Your task to perform on an android device: check battery use Image 0: 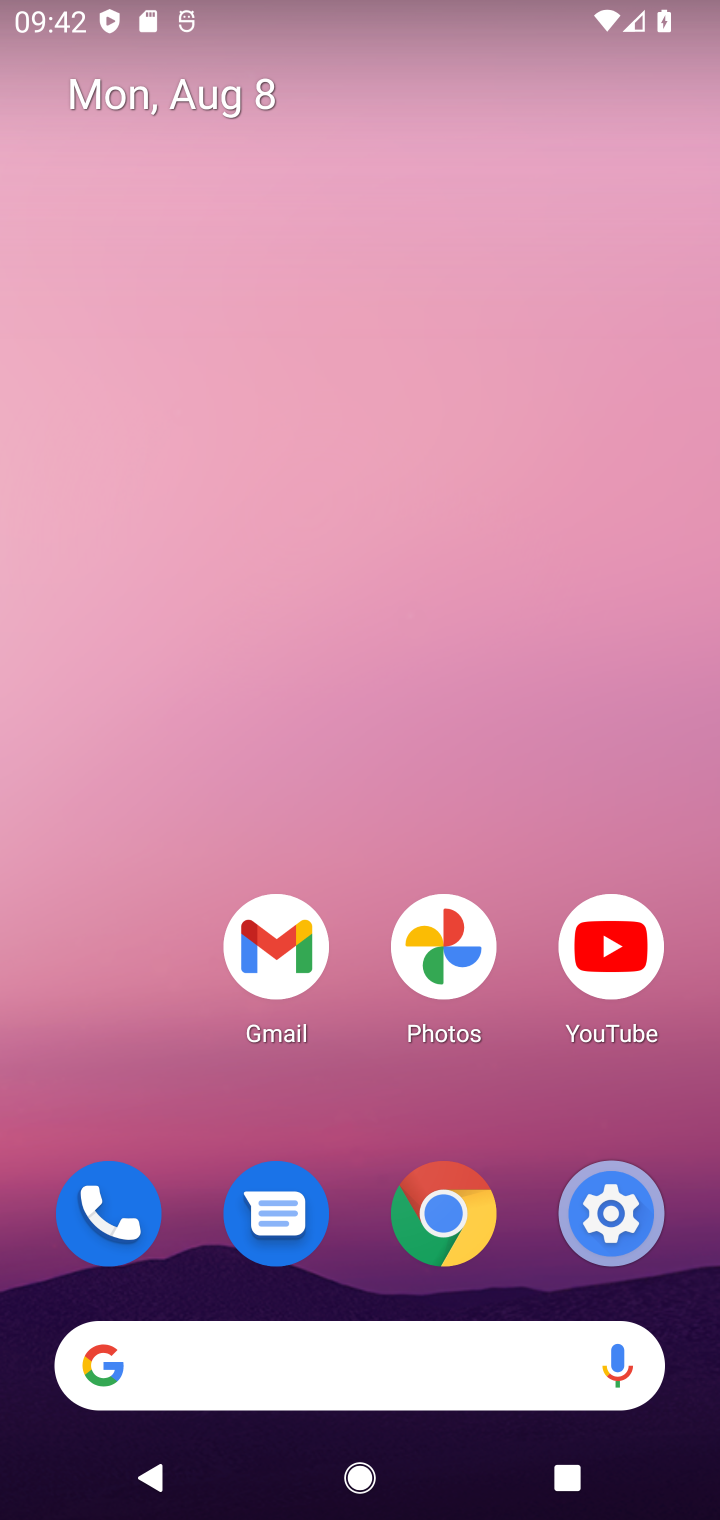
Step 0: drag from (347, 1114) to (347, 434)
Your task to perform on an android device: check battery use Image 1: 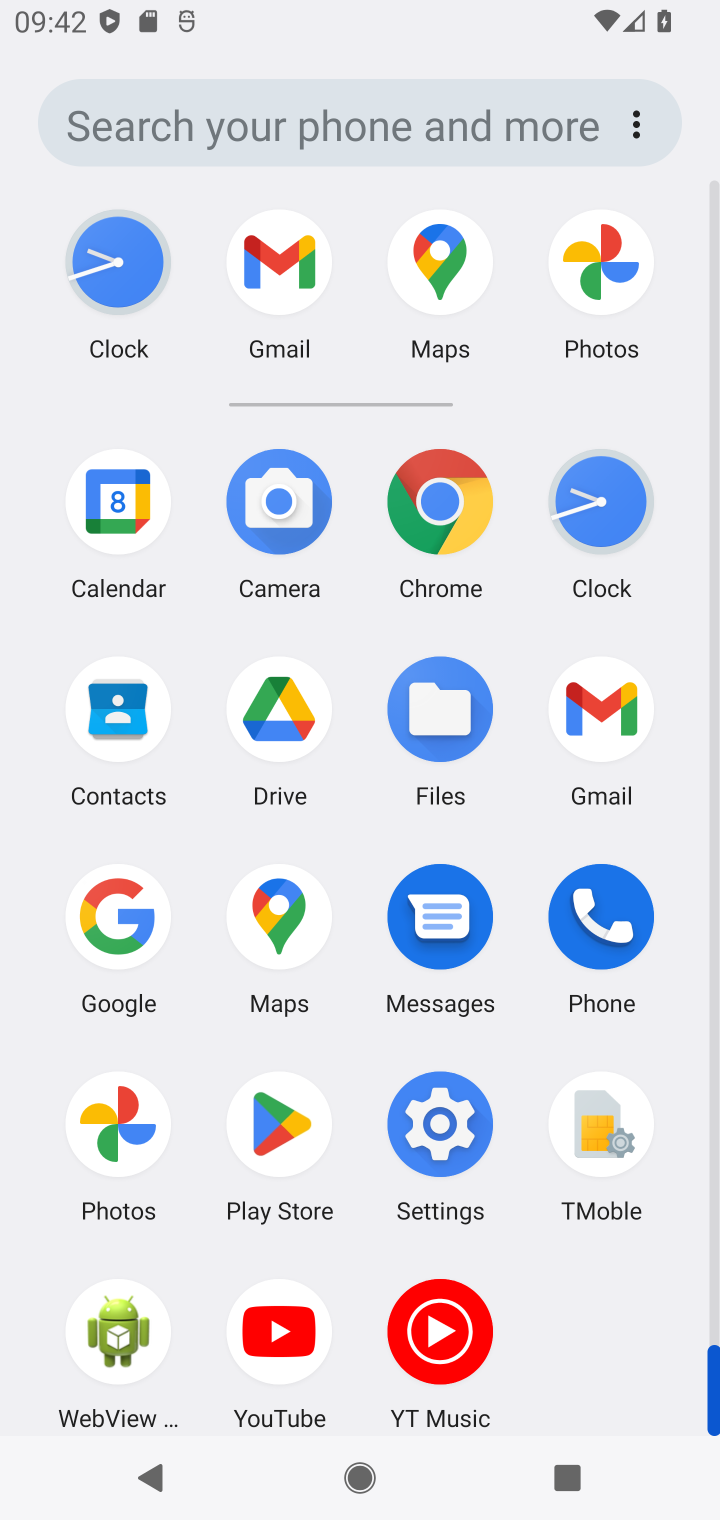
Step 1: click (455, 1153)
Your task to perform on an android device: check battery use Image 2: 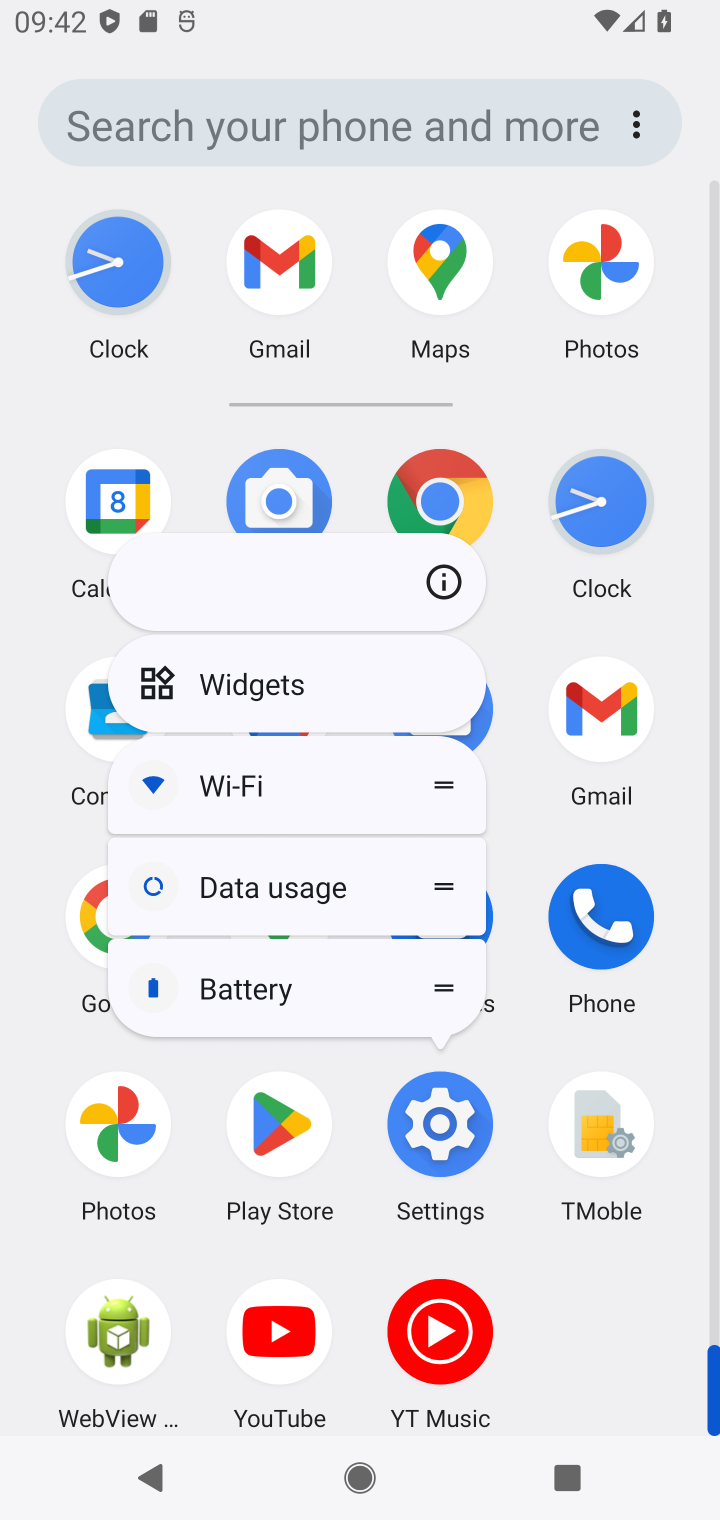
Step 2: click (455, 1153)
Your task to perform on an android device: check battery use Image 3: 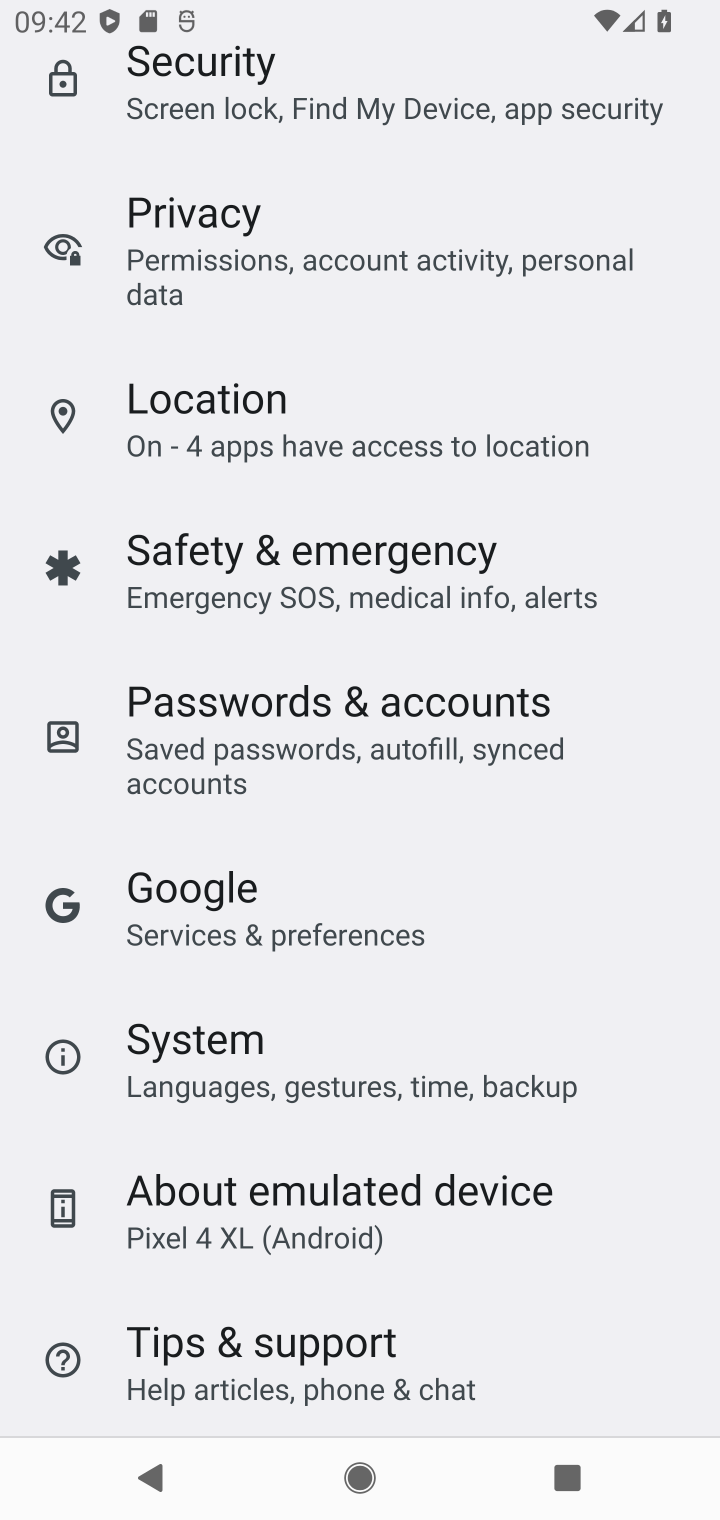
Step 3: drag from (331, 395) to (300, 1166)
Your task to perform on an android device: check battery use Image 4: 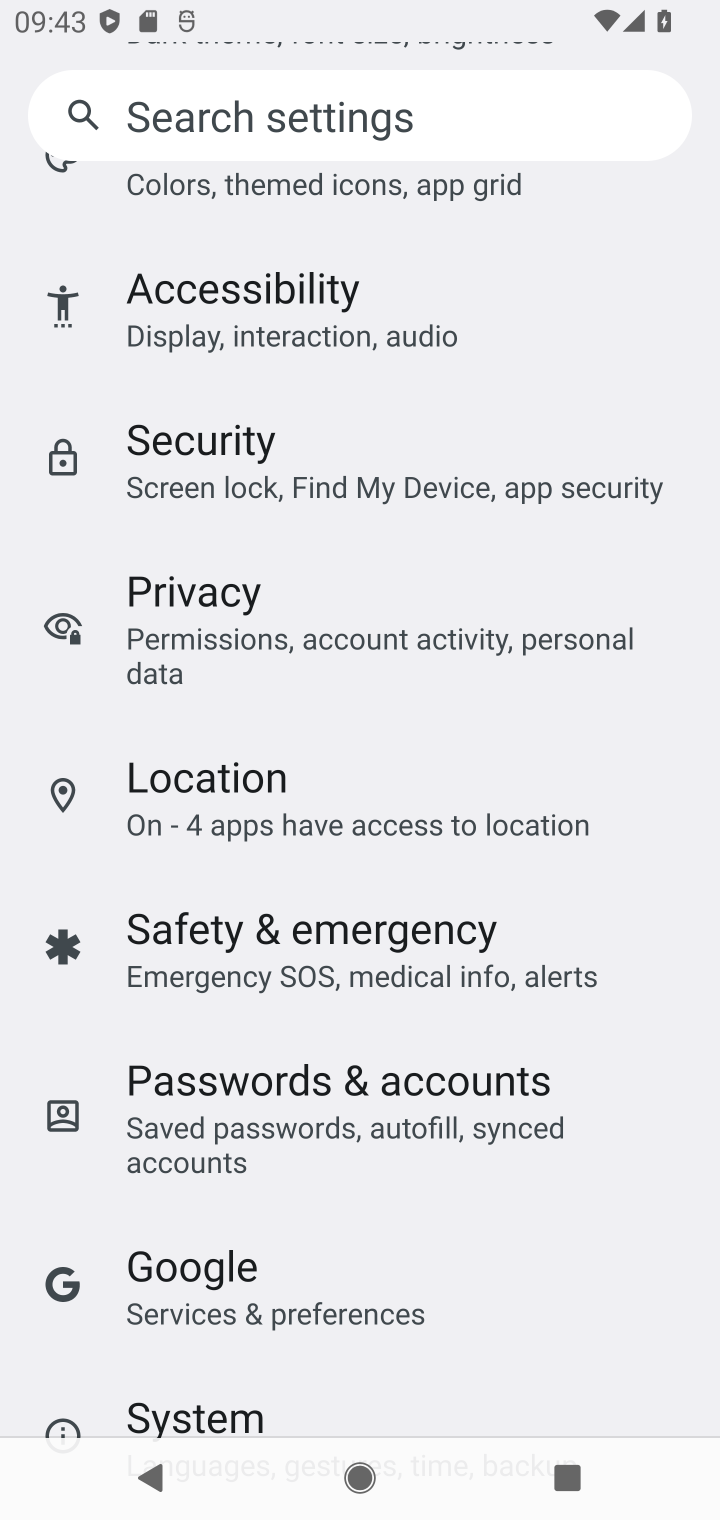
Step 4: drag from (355, 406) to (422, 1189)
Your task to perform on an android device: check battery use Image 5: 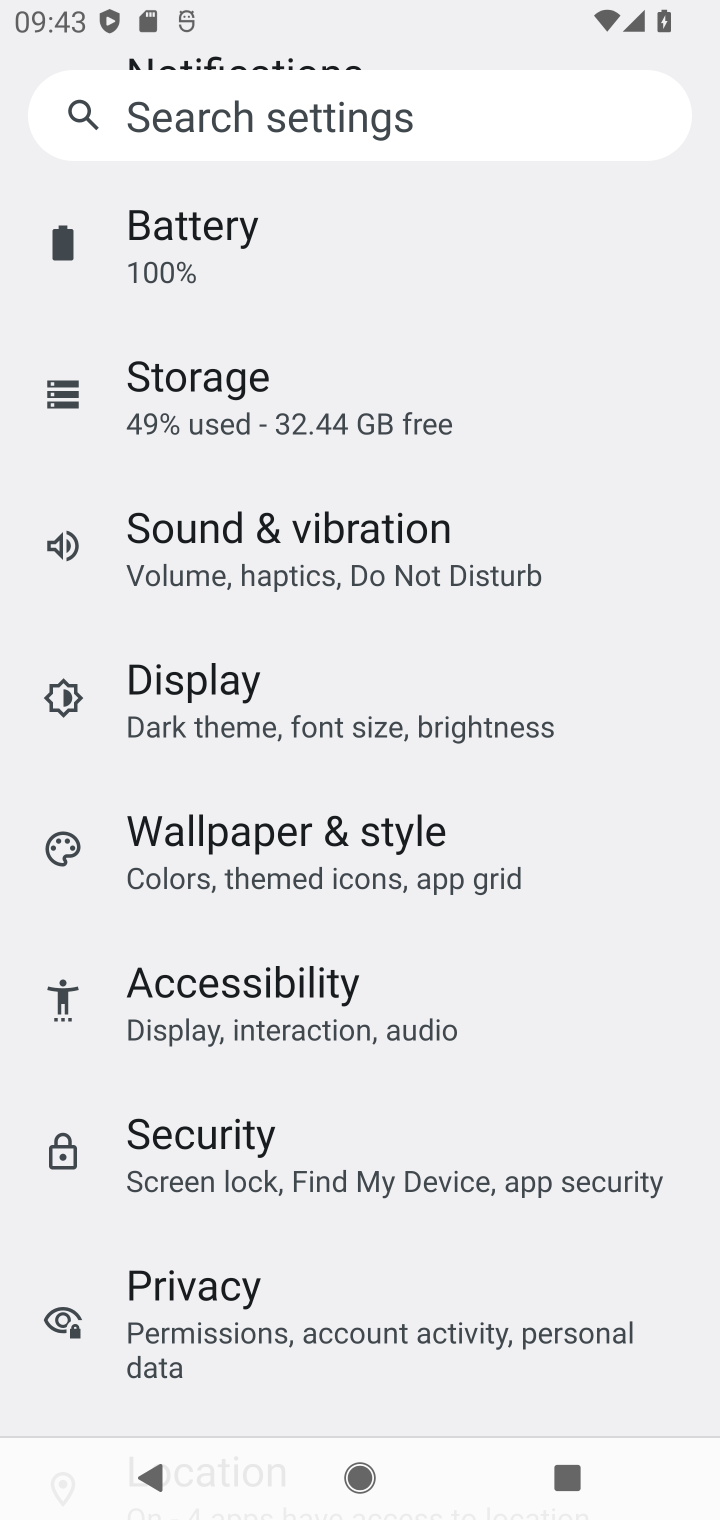
Step 5: click (305, 267)
Your task to perform on an android device: check battery use Image 6: 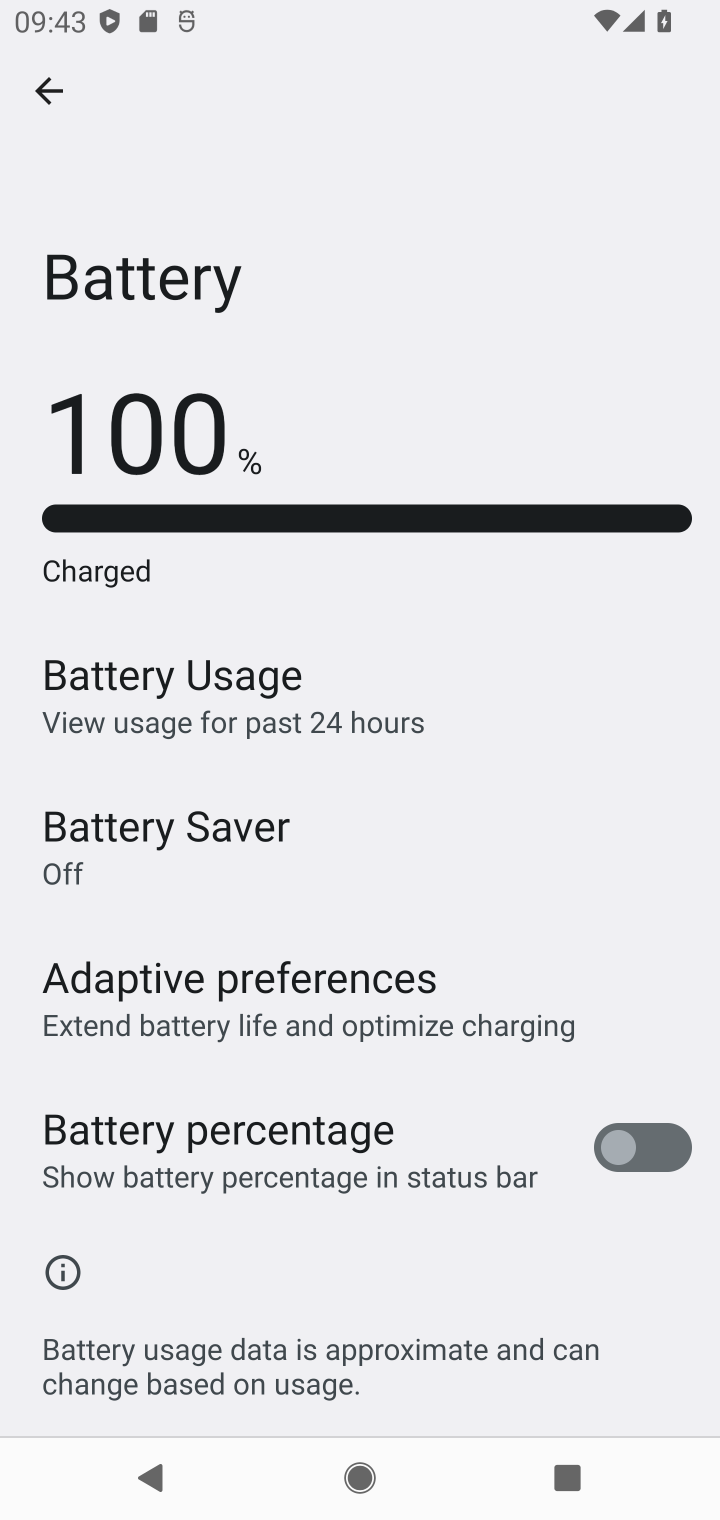
Step 6: click (362, 730)
Your task to perform on an android device: check battery use Image 7: 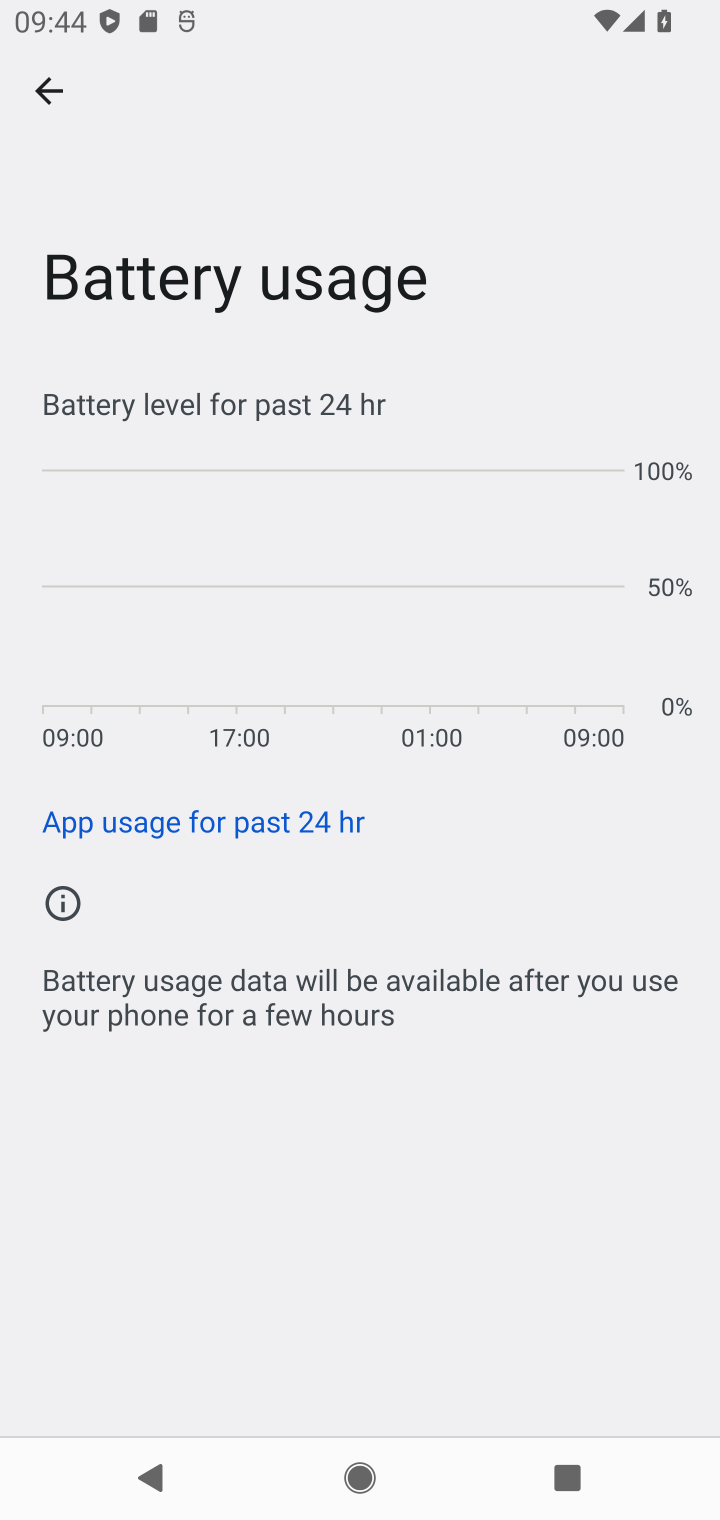
Step 7: task complete